Your task to perform on an android device: turn off location history Image 0: 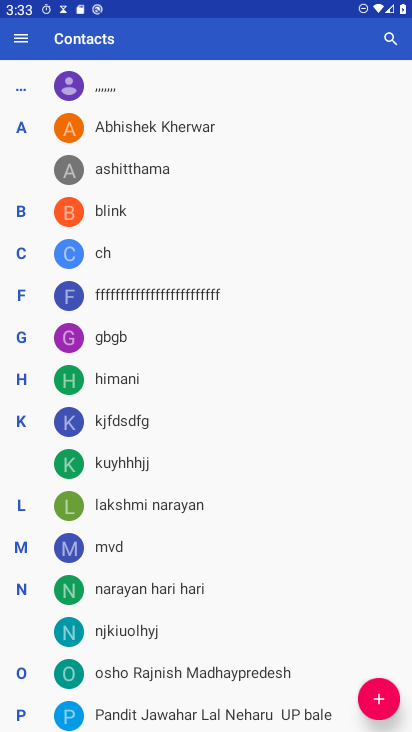
Step 0: press home button
Your task to perform on an android device: turn off location history Image 1: 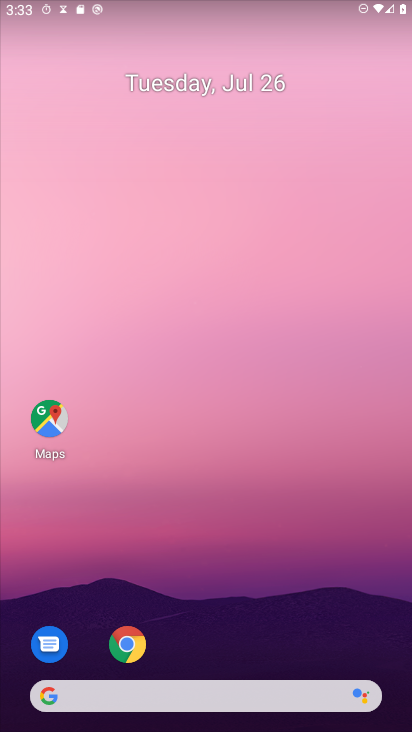
Step 1: drag from (246, 608) to (291, 79)
Your task to perform on an android device: turn off location history Image 2: 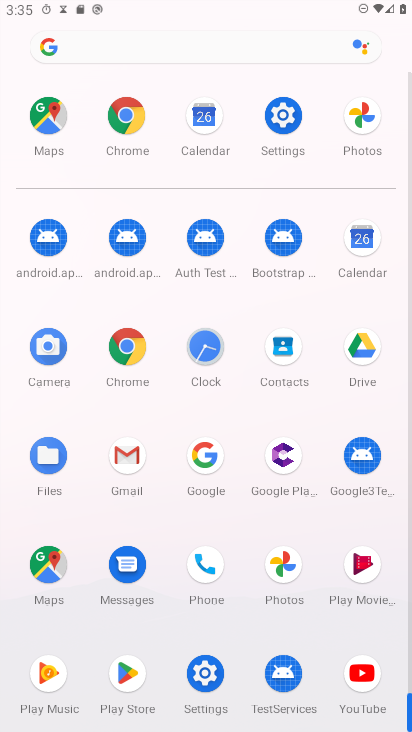
Step 2: click (284, 106)
Your task to perform on an android device: turn off location history Image 3: 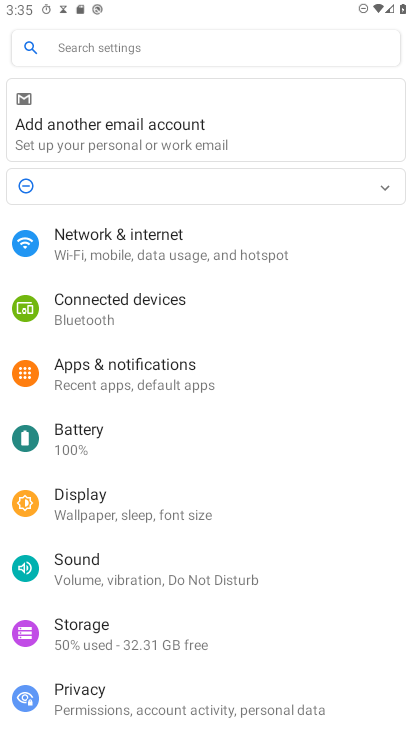
Step 3: drag from (155, 545) to (162, 251)
Your task to perform on an android device: turn off location history Image 4: 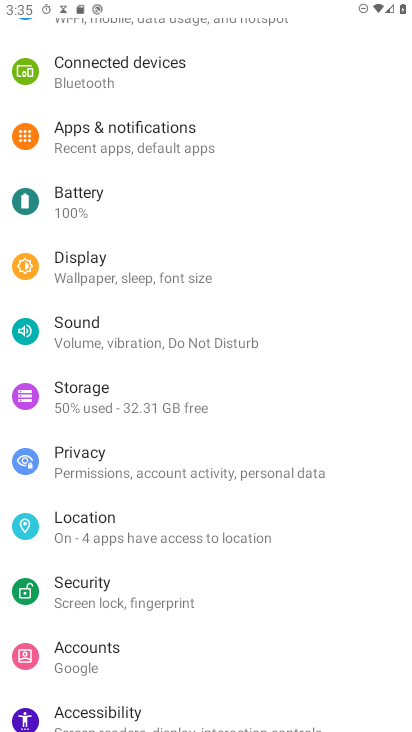
Step 4: click (134, 519)
Your task to perform on an android device: turn off location history Image 5: 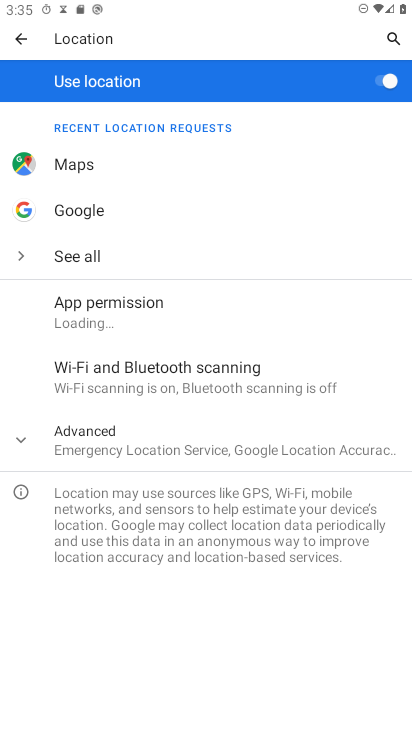
Step 5: click (28, 446)
Your task to perform on an android device: turn off location history Image 6: 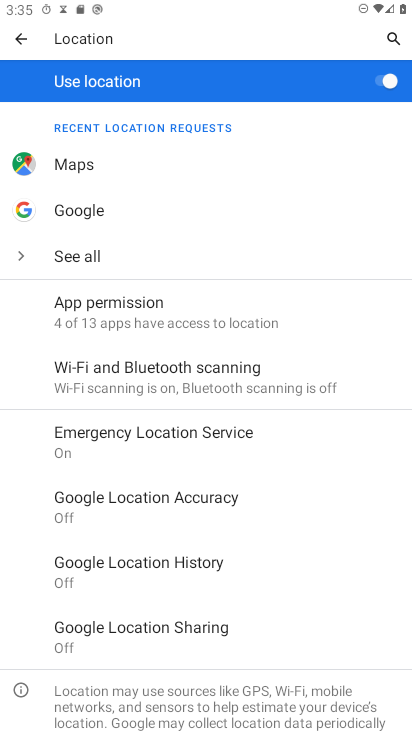
Step 6: task complete